Your task to perform on an android device: Open Google Maps Image 0: 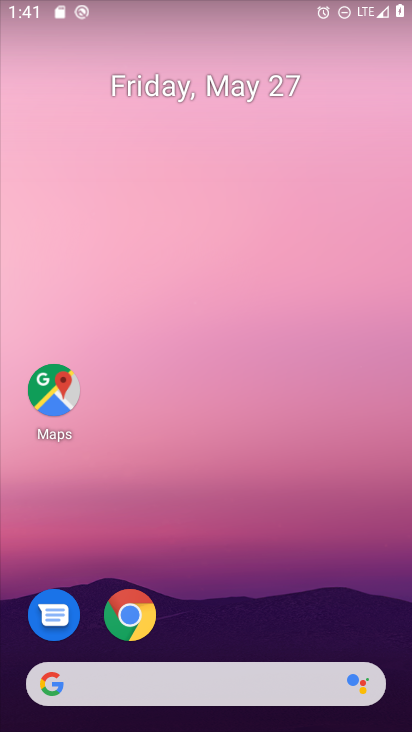
Step 0: drag from (323, 647) to (409, 44)
Your task to perform on an android device: Open Google Maps Image 1: 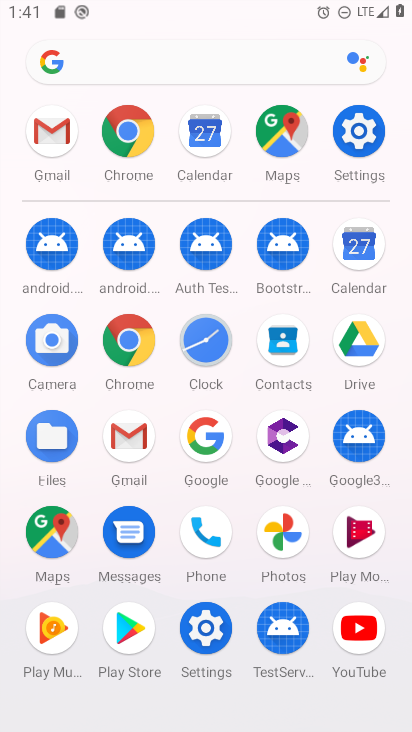
Step 1: click (32, 526)
Your task to perform on an android device: Open Google Maps Image 2: 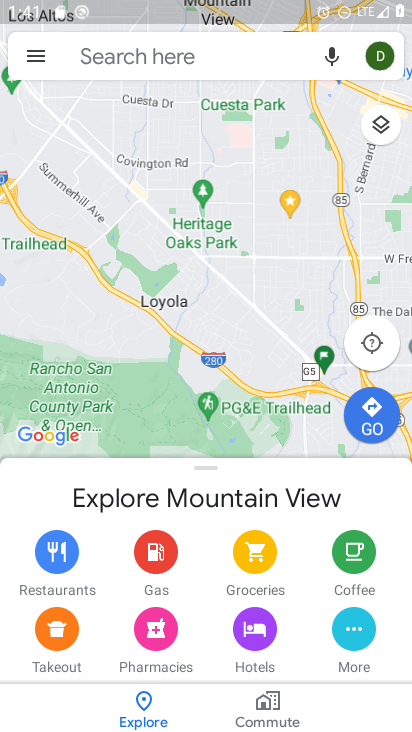
Step 2: task complete